Your task to perform on an android device: open chrome and create a bookmark for the current page Image 0: 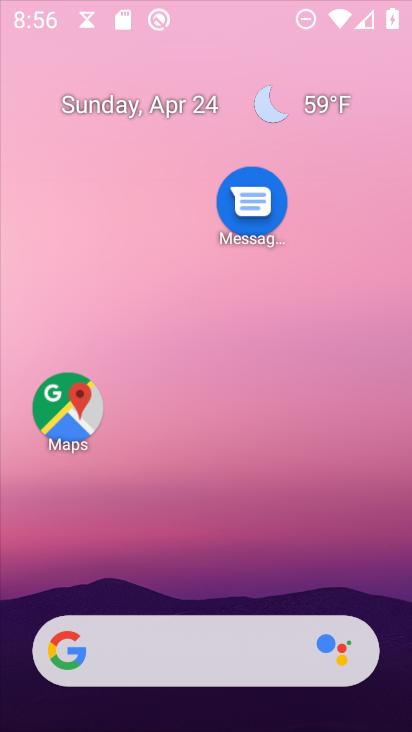
Step 0: press home button
Your task to perform on an android device: open chrome and create a bookmark for the current page Image 1: 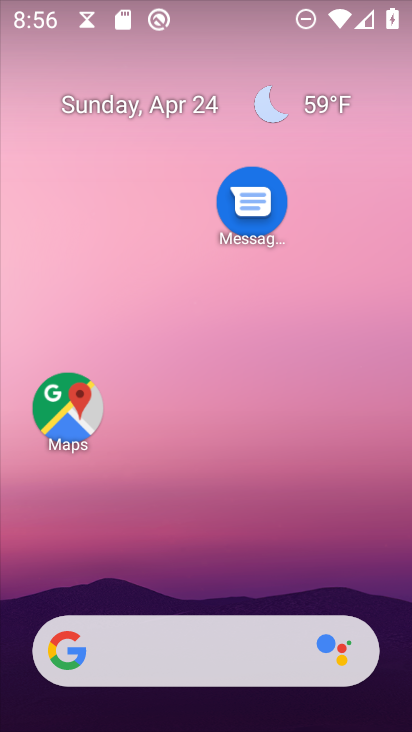
Step 1: press home button
Your task to perform on an android device: open chrome and create a bookmark for the current page Image 2: 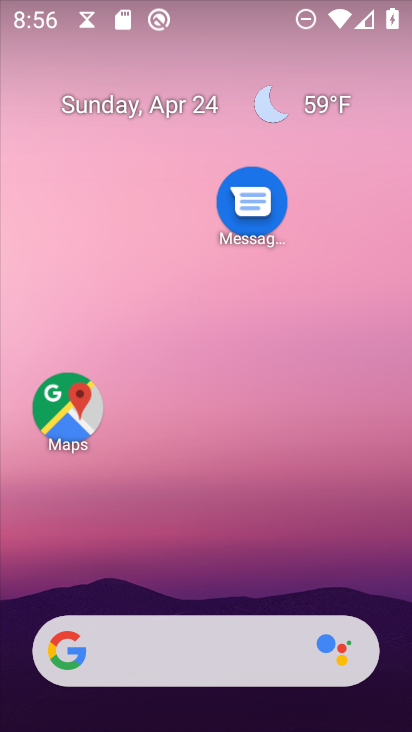
Step 2: drag from (155, 659) to (308, 150)
Your task to perform on an android device: open chrome and create a bookmark for the current page Image 3: 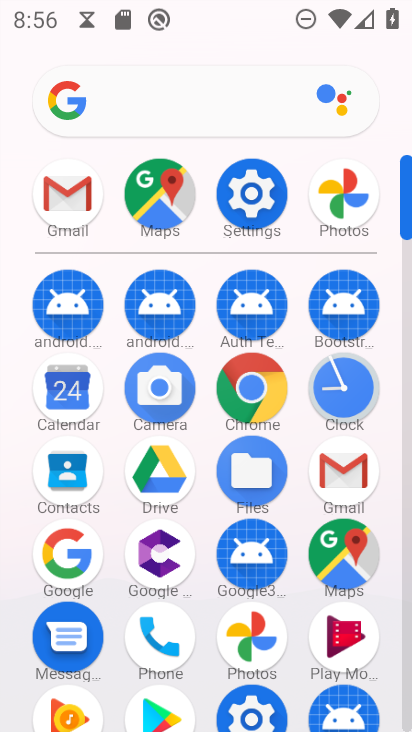
Step 3: click (260, 402)
Your task to perform on an android device: open chrome and create a bookmark for the current page Image 4: 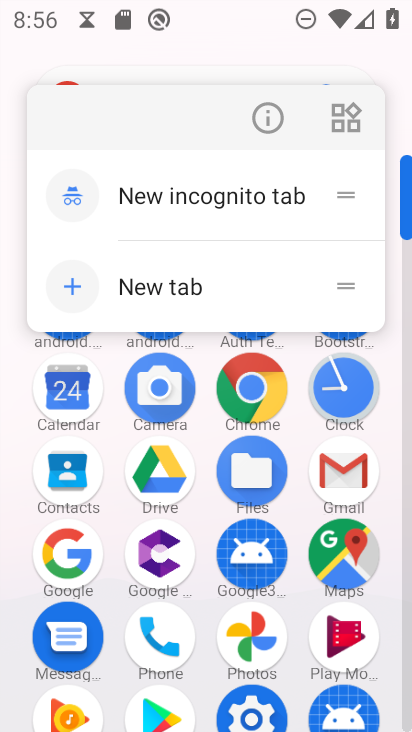
Step 4: click (255, 394)
Your task to perform on an android device: open chrome and create a bookmark for the current page Image 5: 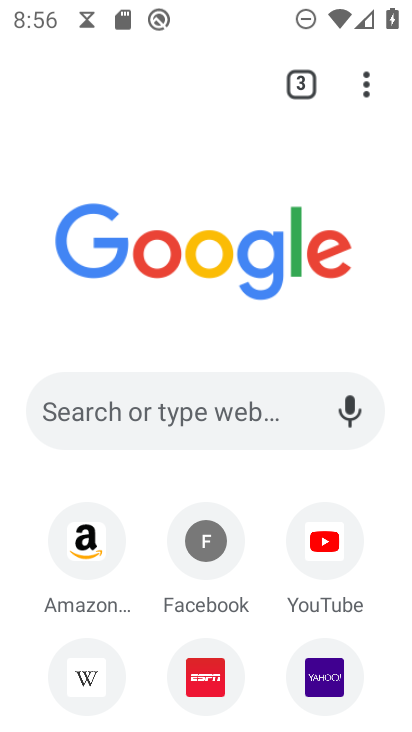
Step 5: click (353, 101)
Your task to perform on an android device: open chrome and create a bookmark for the current page Image 6: 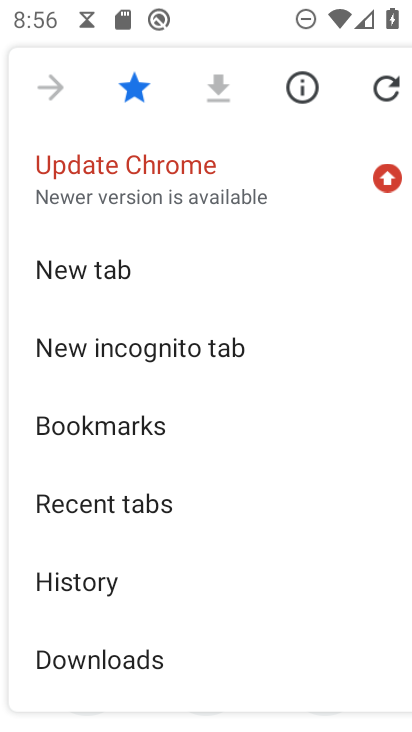
Step 6: task complete